Your task to perform on an android device: turn off picture-in-picture Image 0: 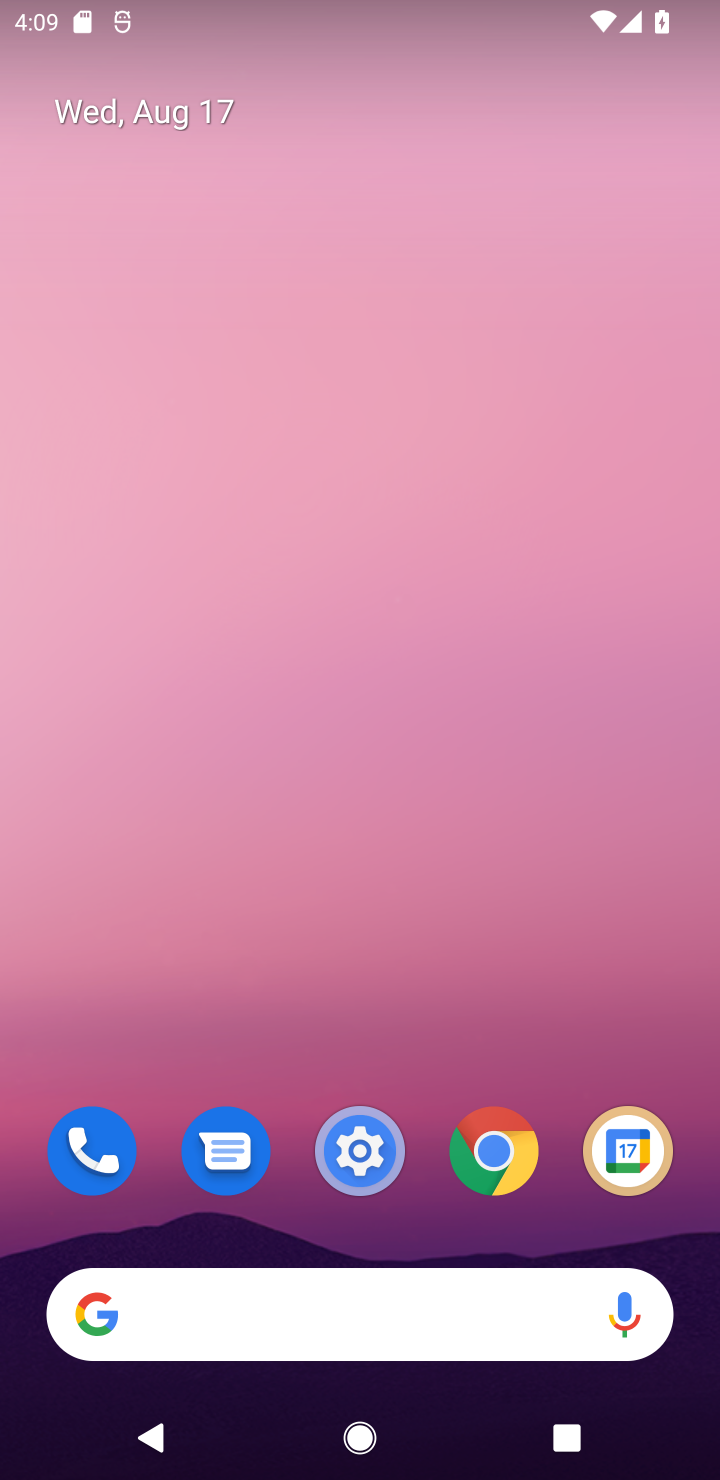
Step 0: click (366, 1137)
Your task to perform on an android device: turn off picture-in-picture Image 1: 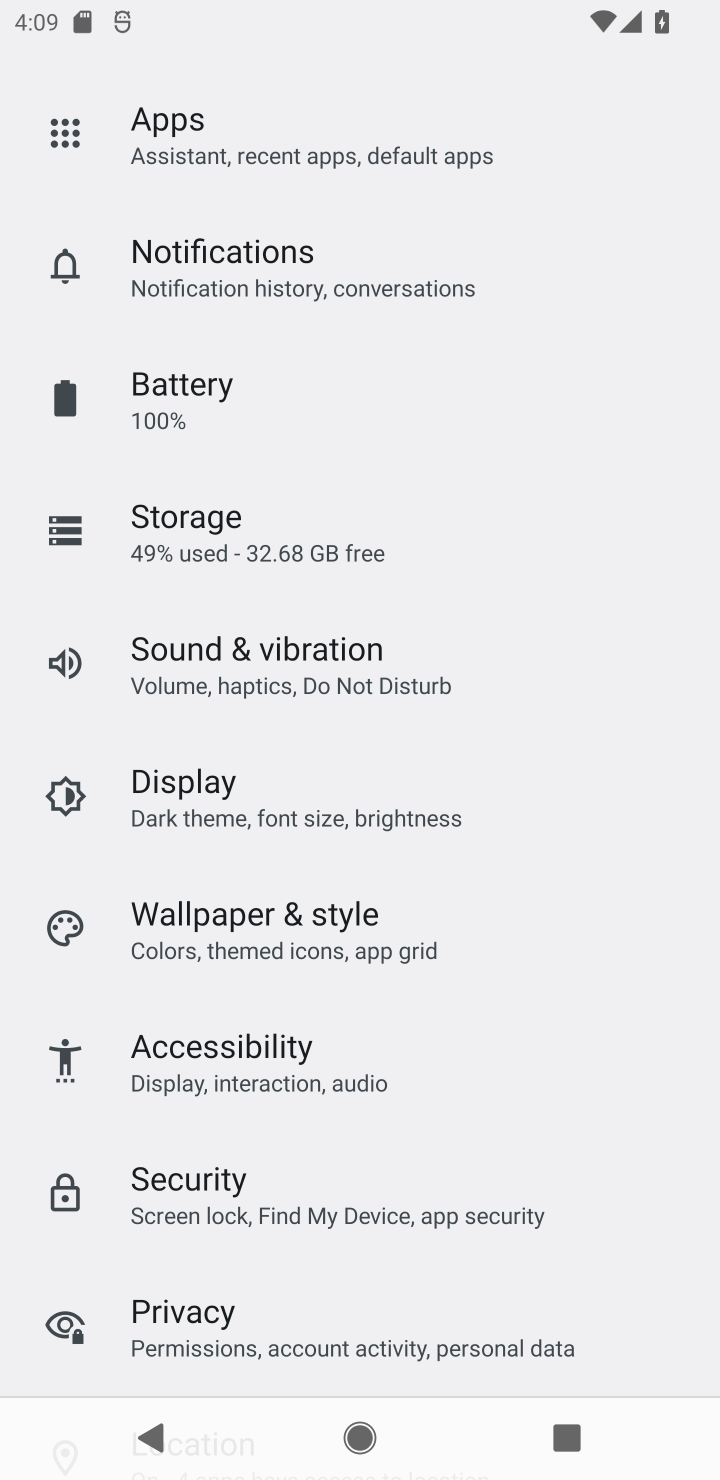
Step 1: drag from (337, 1271) to (325, 320)
Your task to perform on an android device: turn off picture-in-picture Image 2: 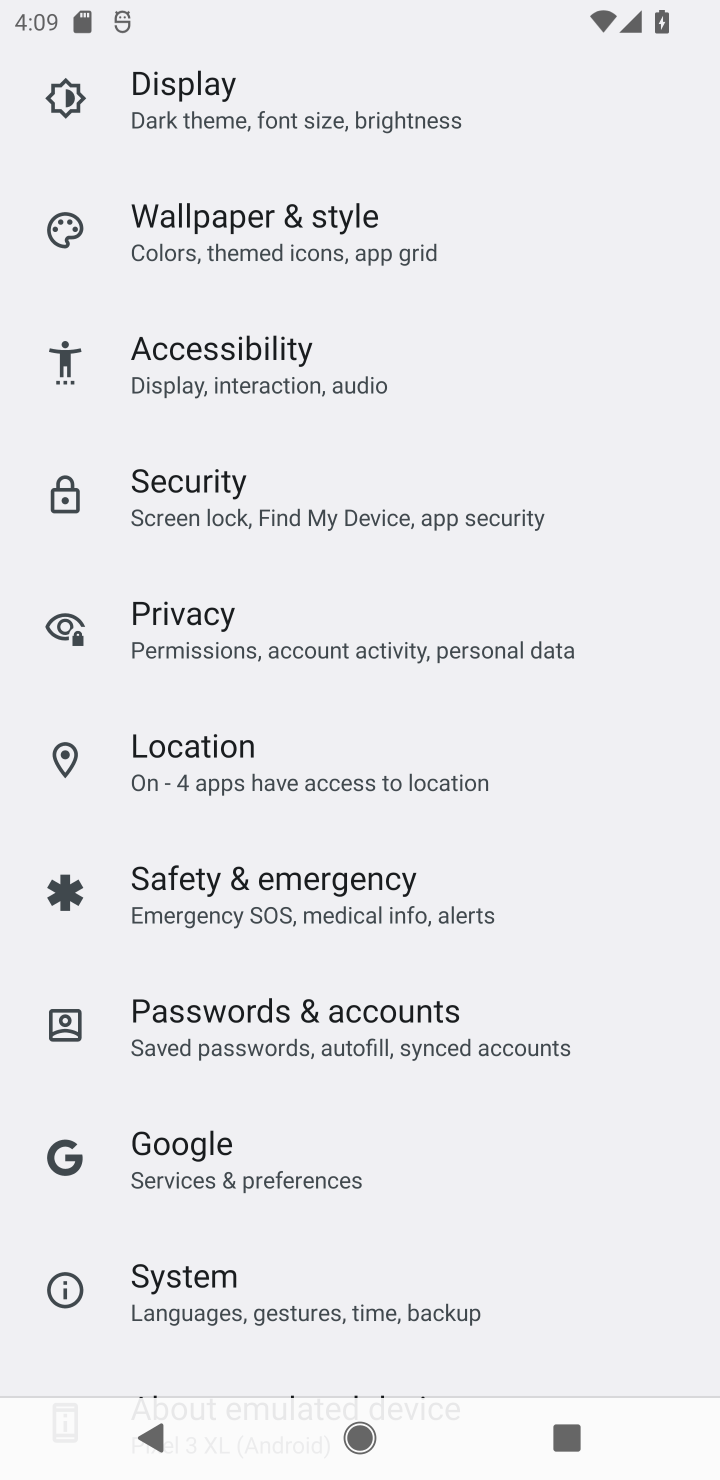
Step 2: drag from (326, 1273) to (367, 447)
Your task to perform on an android device: turn off picture-in-picture Image 3: 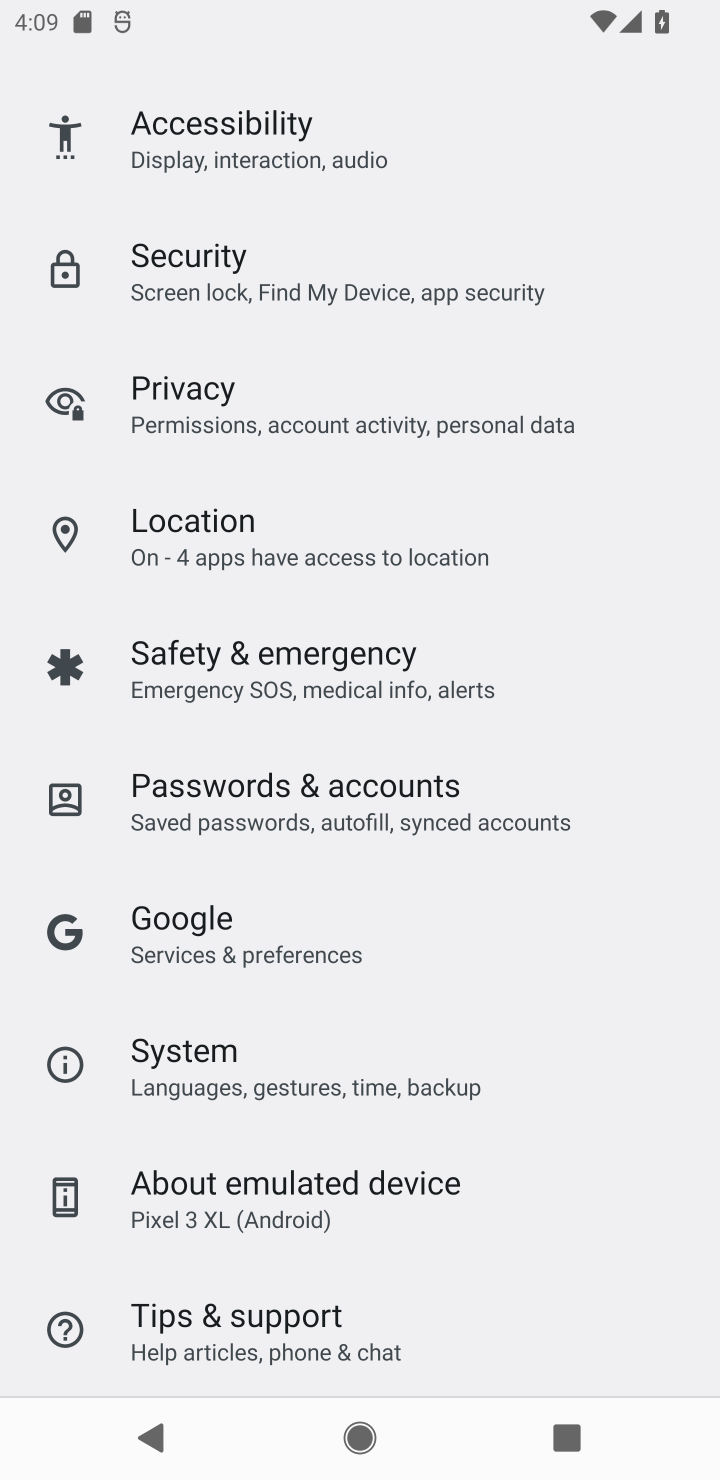
Step 3: click (480, 1211)
Your task to perform on an android device: turn off picture-in-picture Image 4: 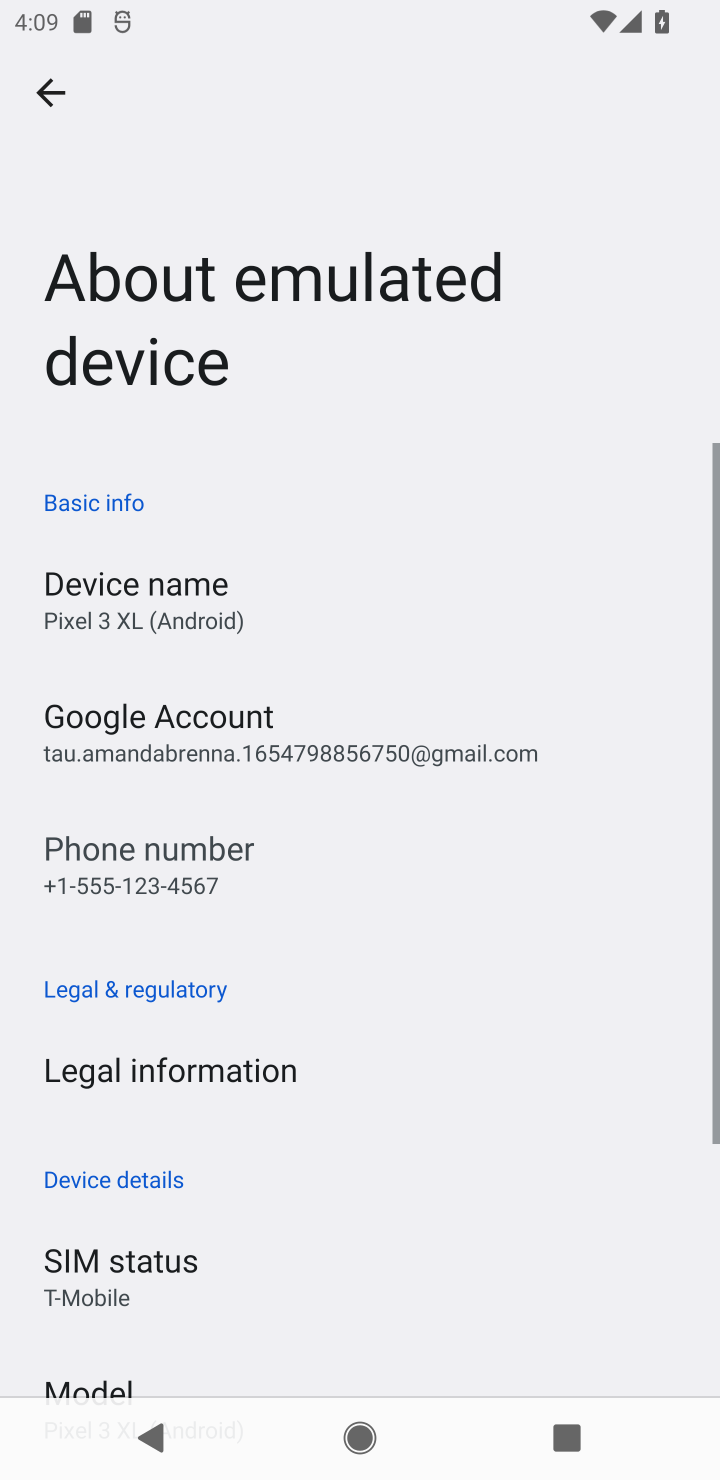
Step 4: task complete